Your task to perform on an android device: Do I have any events tomorrow? Image 0: 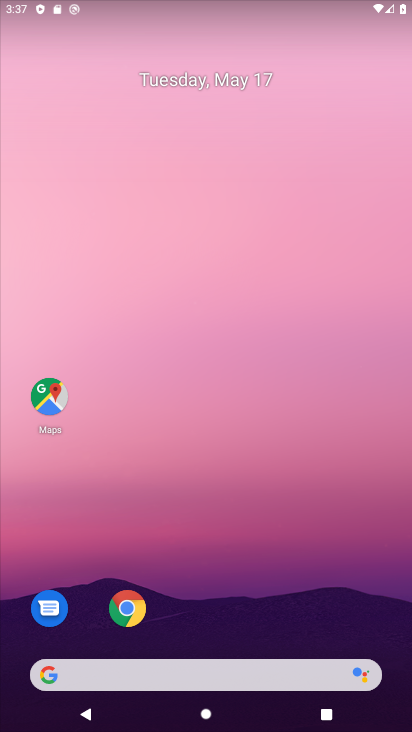
Step 0: drag from (204, 643) to (221, 299)
Your task to perform on an android device: Do I have any events tomorrow? Image 1: 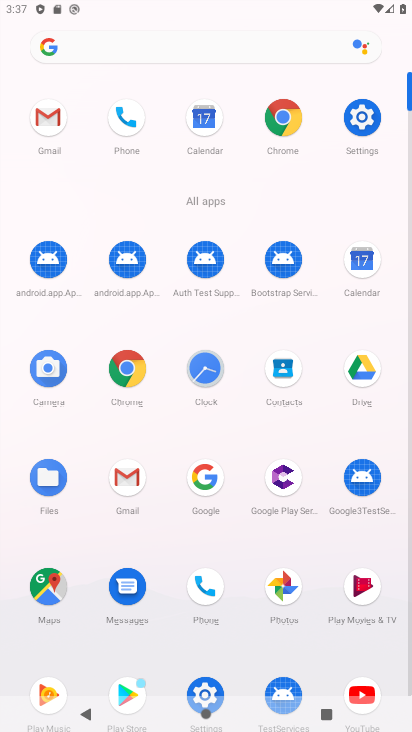
Step 1: click (356, 271)
Your task to perform on an android device: Do I have any events tomorrow? Image 2: 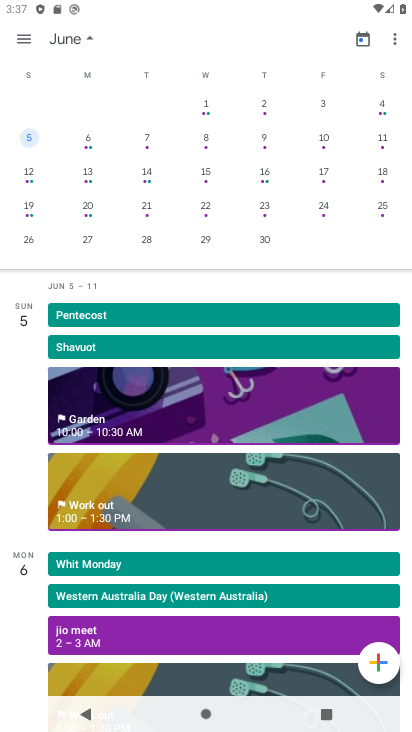
Step 2: drag from (54, 127) to (409, 141)
Your task to perform on an android device: Do I have any events tomorrow? Image 3: 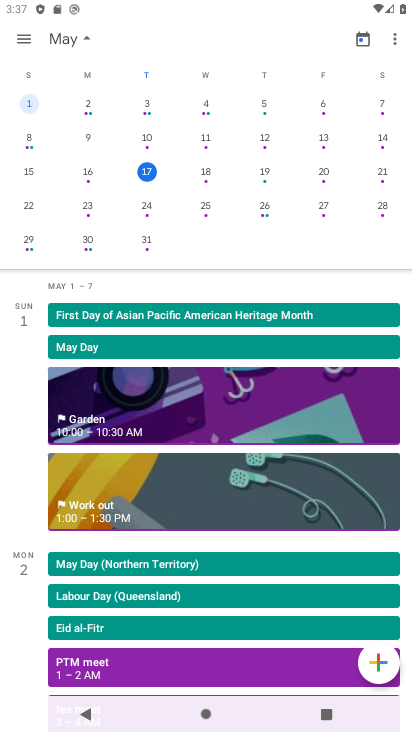
Step 3: drag from (50, 186) to (239, 186)
Your task to perform on an android device: Do I have any events tomorrow? Image 4: 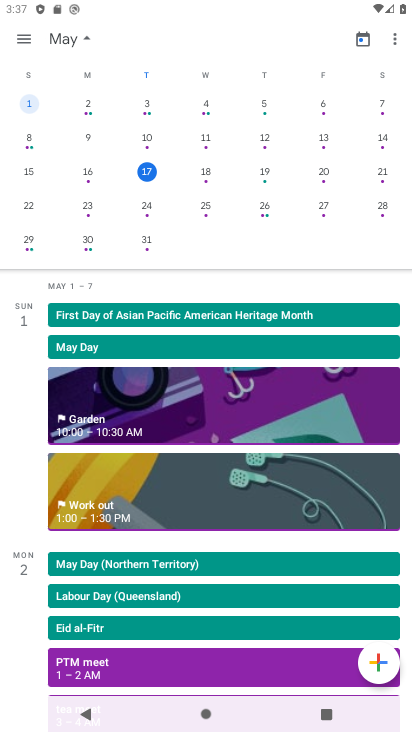
Step 4: click (209, 167)
Your task to perform on an android device: Do I have any events tomorrow? Image 5: 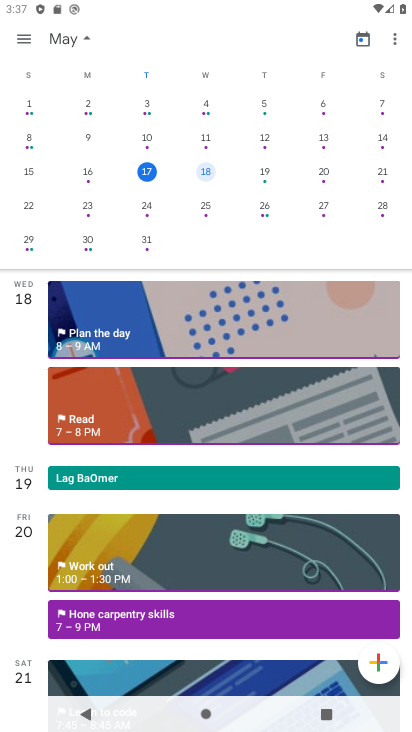
Step 5: task complete